Your task to perform on an android device: manage bookmarks in the chrome app Image 0: 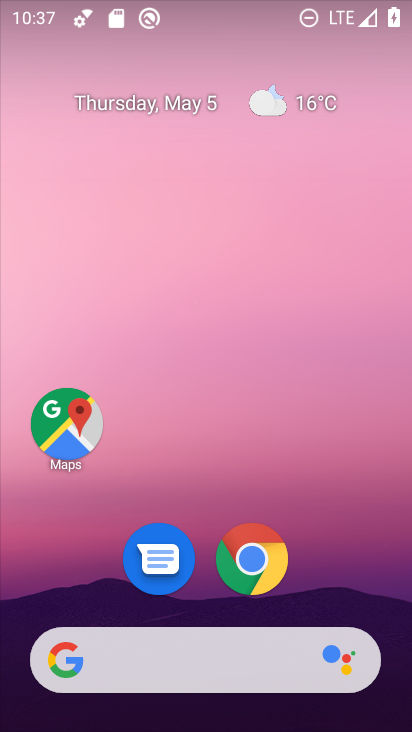
Step 0: drag from (381, 642) to (264, 102)
Your task to perform on an android device: manage bookmarks in the chrome app Image 1: 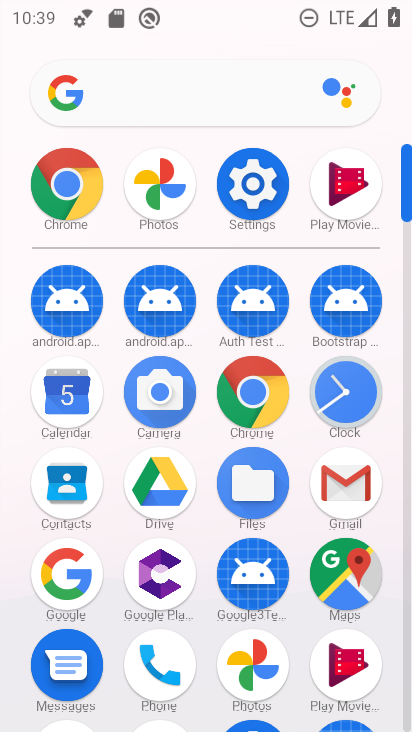
Step 1: click (269, 403)
Your task to perform on an android device: manage bookmarks in the chrome app Image 2: 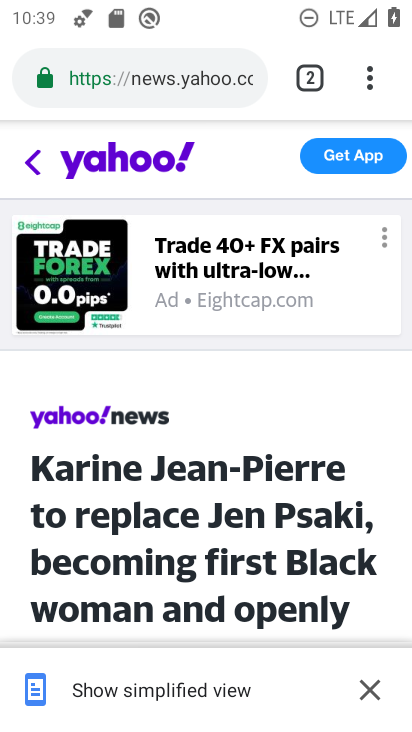
Step 2: task complete